Your task to perform on an android device: change the clock display to show seconds Image 0: 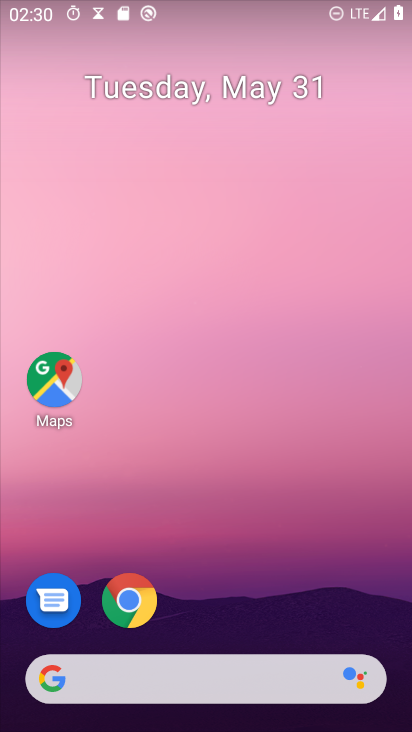
Step 0: drag from (233, 725) to (272, 358)
Your task to perform on an android device: change the clock display to show seconds Image 1: 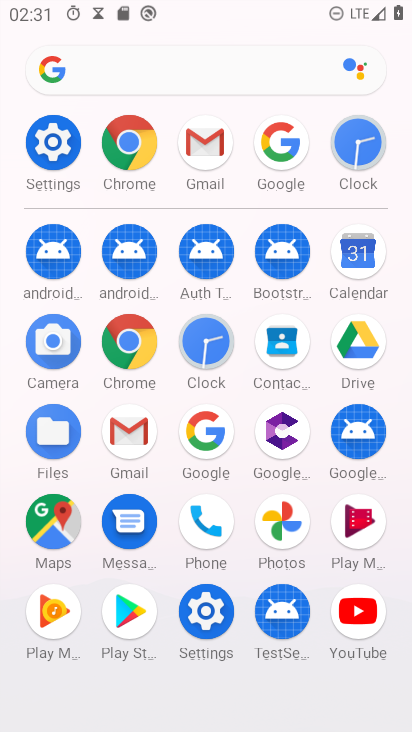
Step 1: click (356, 146)
Your task to perform on an android device: change the clock display to show seconds Image 2: 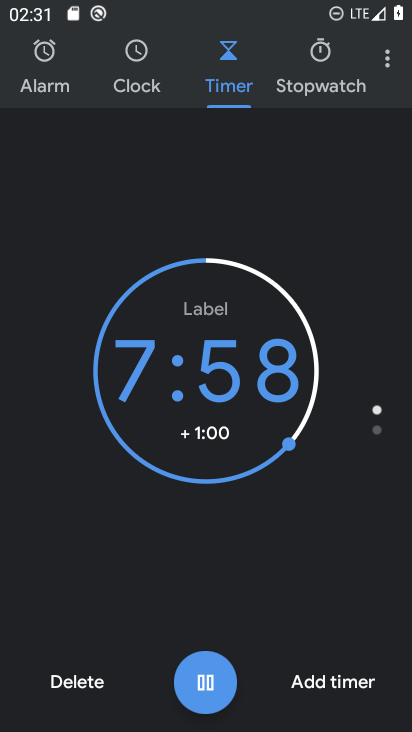
Step 2: click (384, 66)
Your task to perform on an android device: change the clock display to show seconds Image 3: 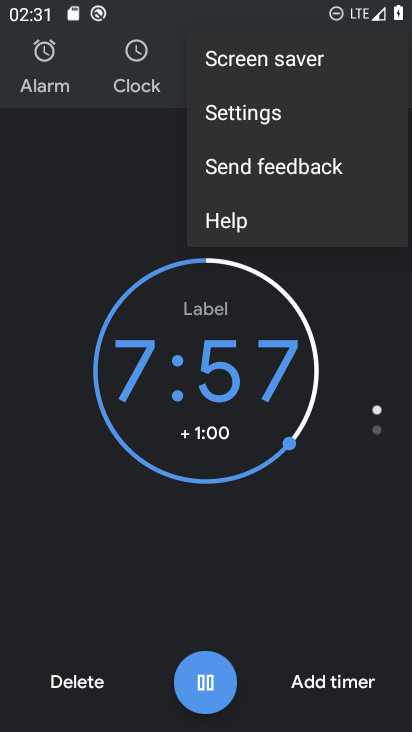
Step 3: click (252, 108)
Your task to perform on an android device: change the clock display to show seconds Image 4: 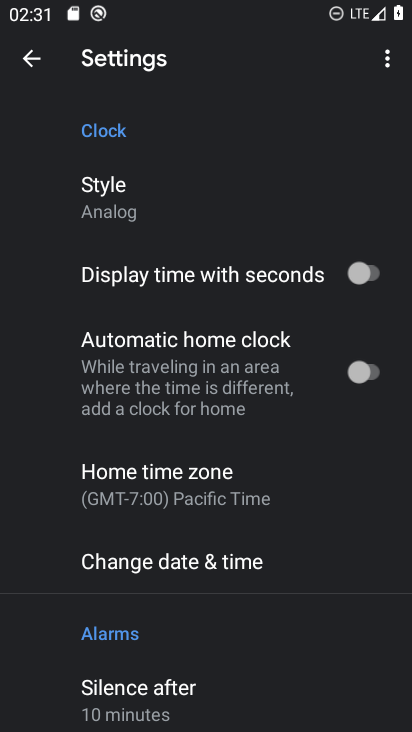
Step 4: click (368, 276)
Your task to perform on an android device: change the clock display to show seconds Image 5: 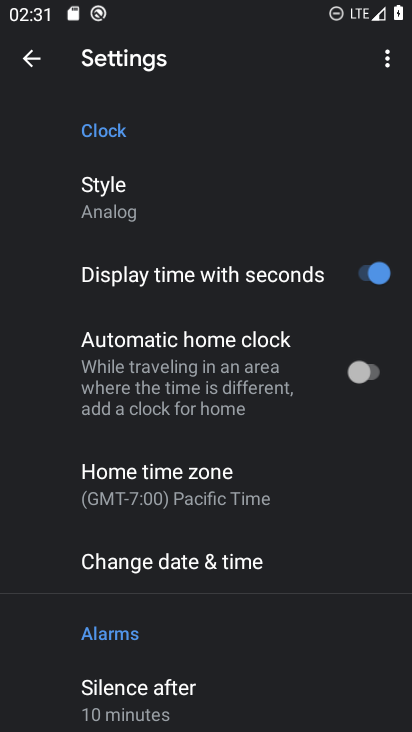
Step 5: task complete